Your task to perform on an android device: turn off sleep mode Image 0: 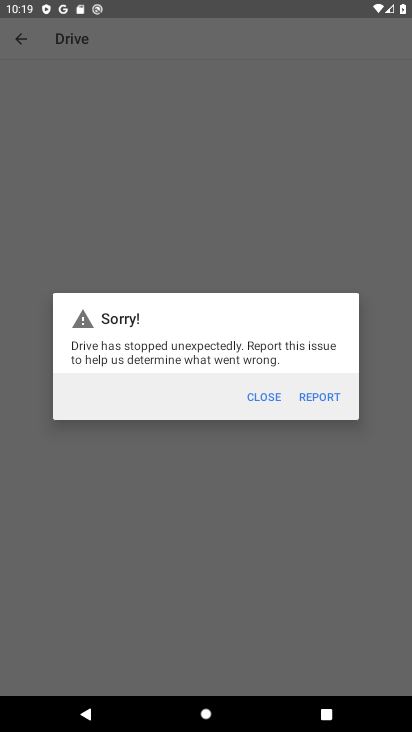
Step 0: press home button
Your task to perform on an android device: turn off sleep mode Image 1: 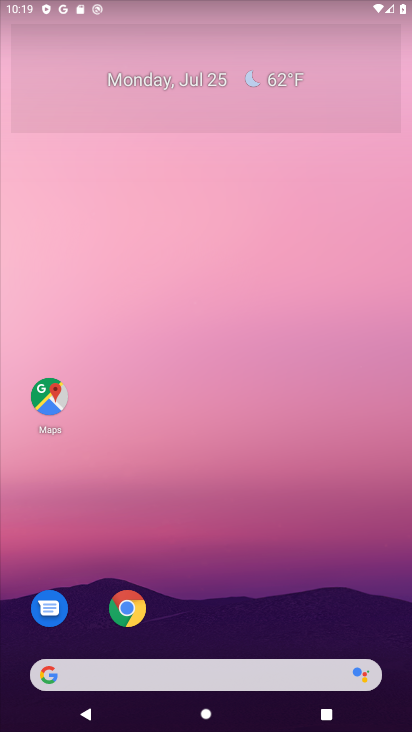
Step 1: drag from (251, 614) to (246, 337)
Your task to perform on an android device: turn off sleep mode Image 2: 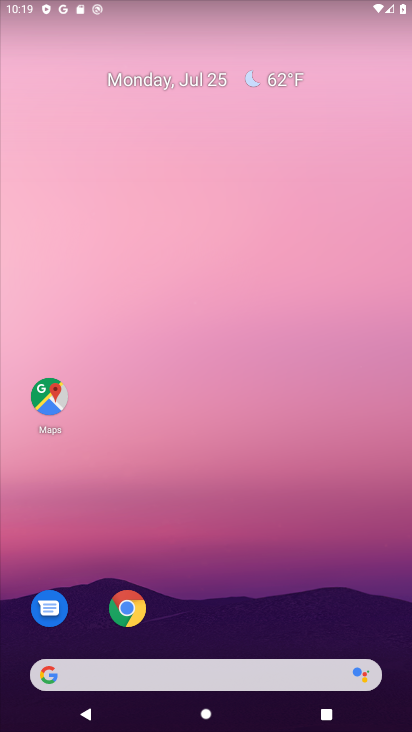
Step 2: drag from (244, 580) to (310, 60)
Your task to perform on an android device: turn off sleep mode Image 3: 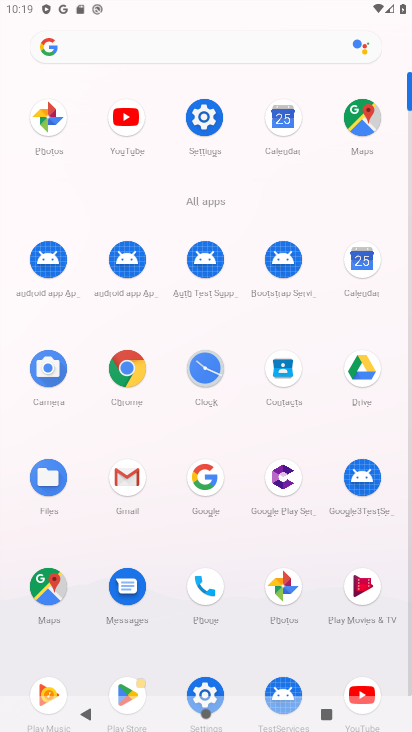
Step 3: click (200, 685)
Your task to perform on an android device: turn off sleep mode Image 4: 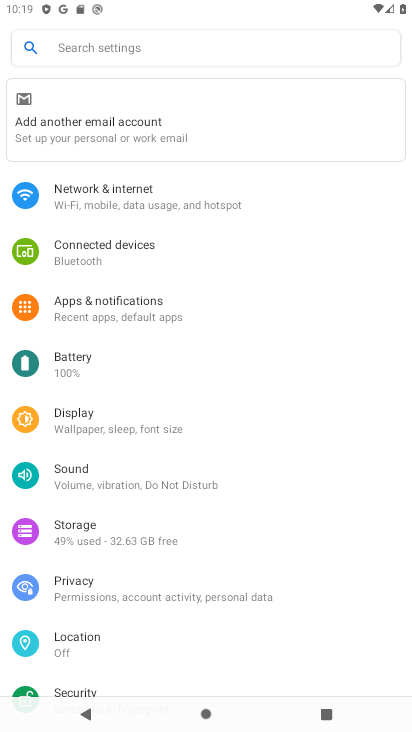
Step 4: task complete